Your task to perform on an android device: Clear the shopping cart on newegg.com. Image 0: 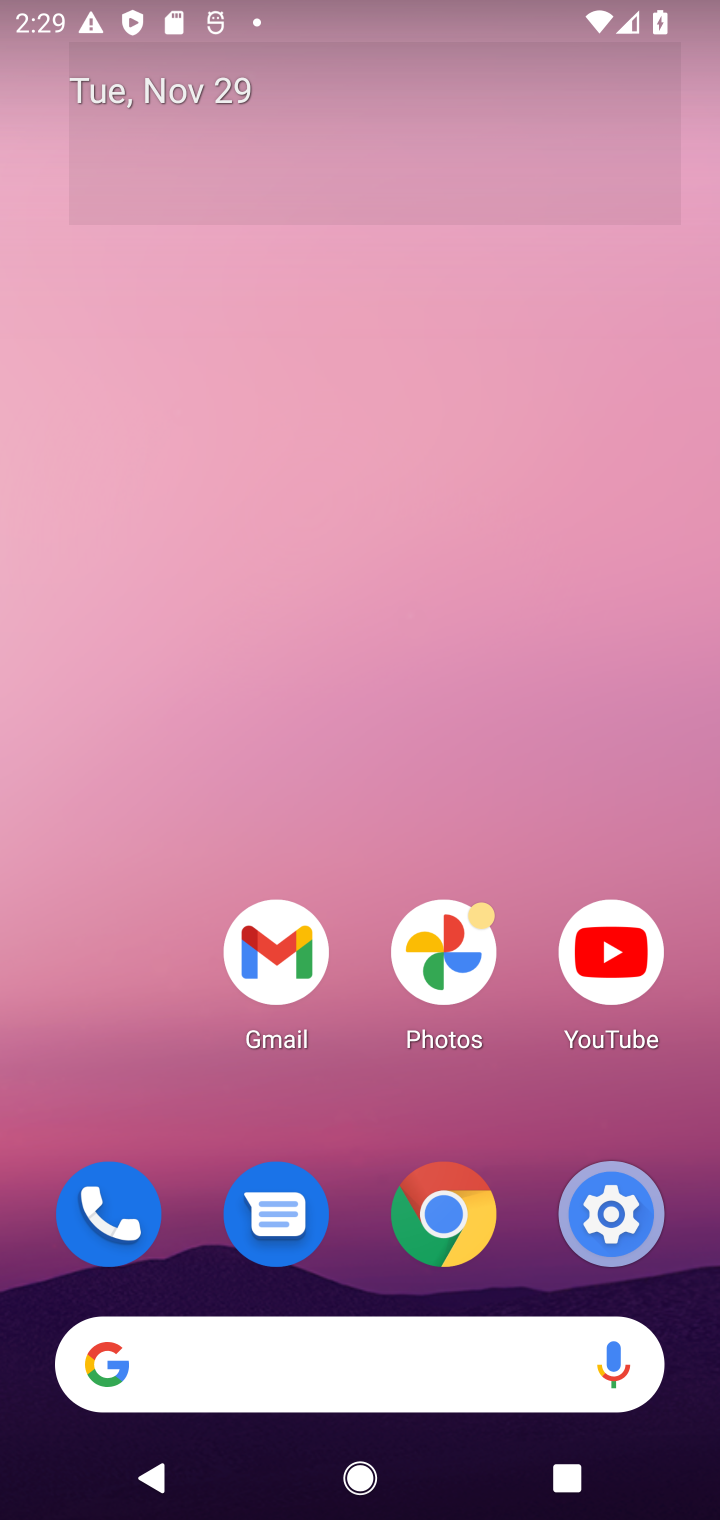
Step 0: click (357, 1331)
Your task to perform on an android device: Clear the shopping cart on newegg.com. Image 1: 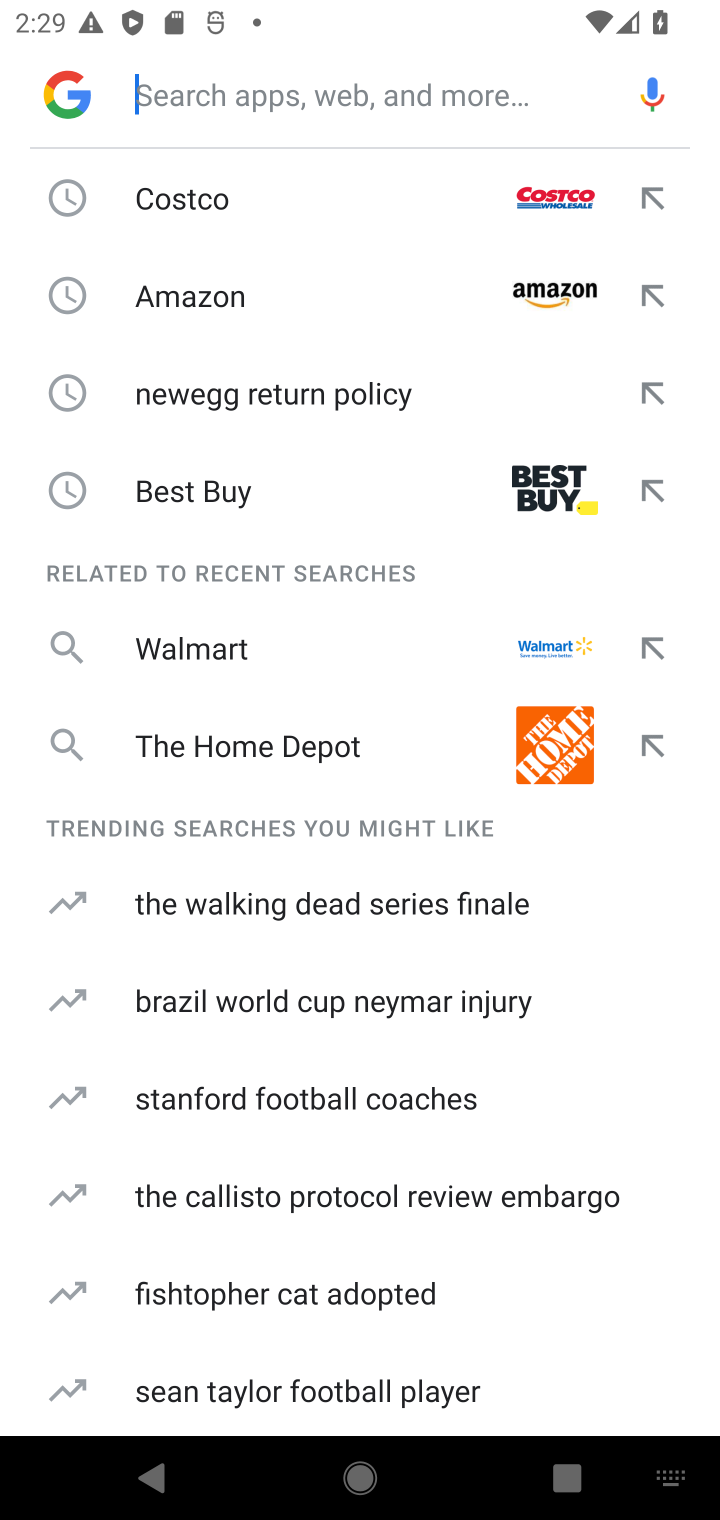
Step 1: click (206, 389)
Your task to perform on an android device: Clear the shopping cart on newegg.com. Image 2: 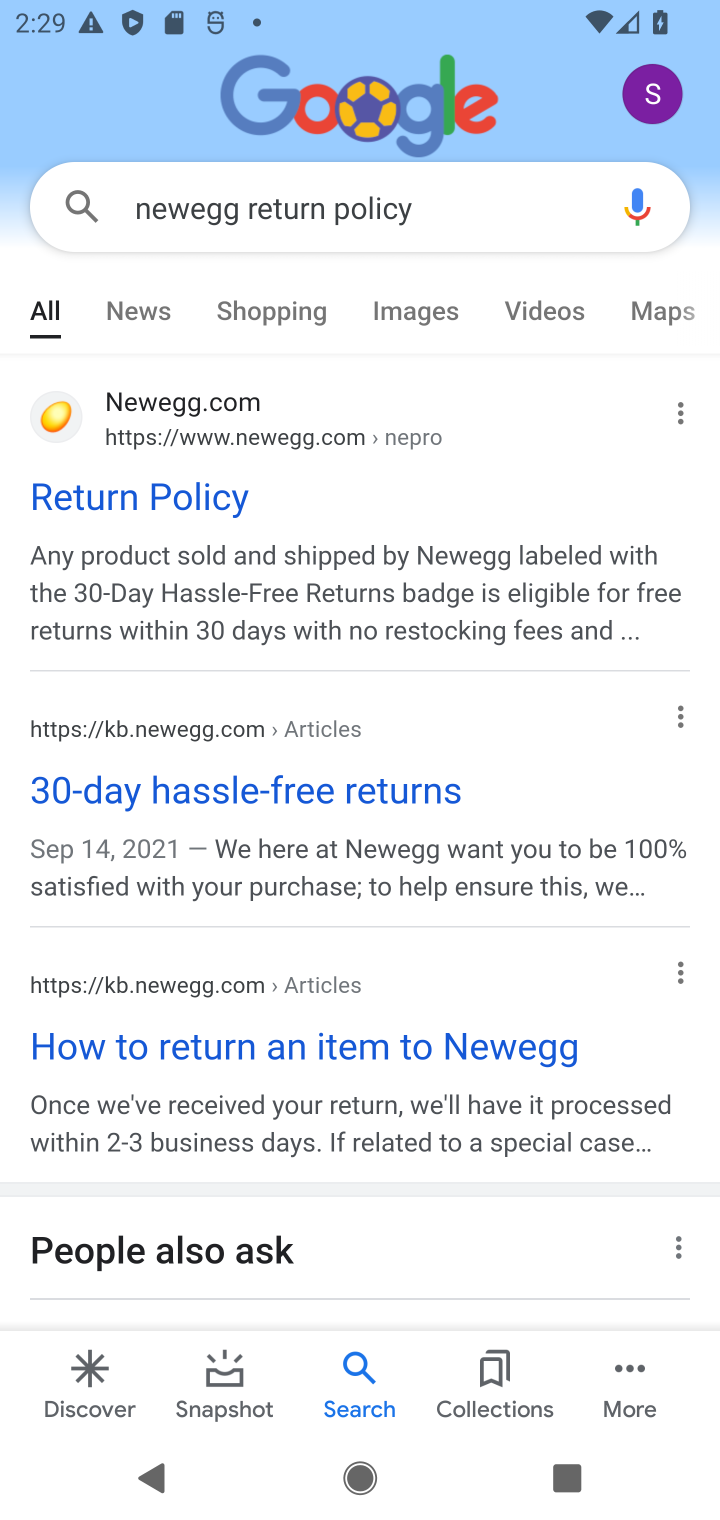
Step 2: click (102, 496)
Your task to perform on an android device: Clear the shopping cart on newegg.com. Image 3: 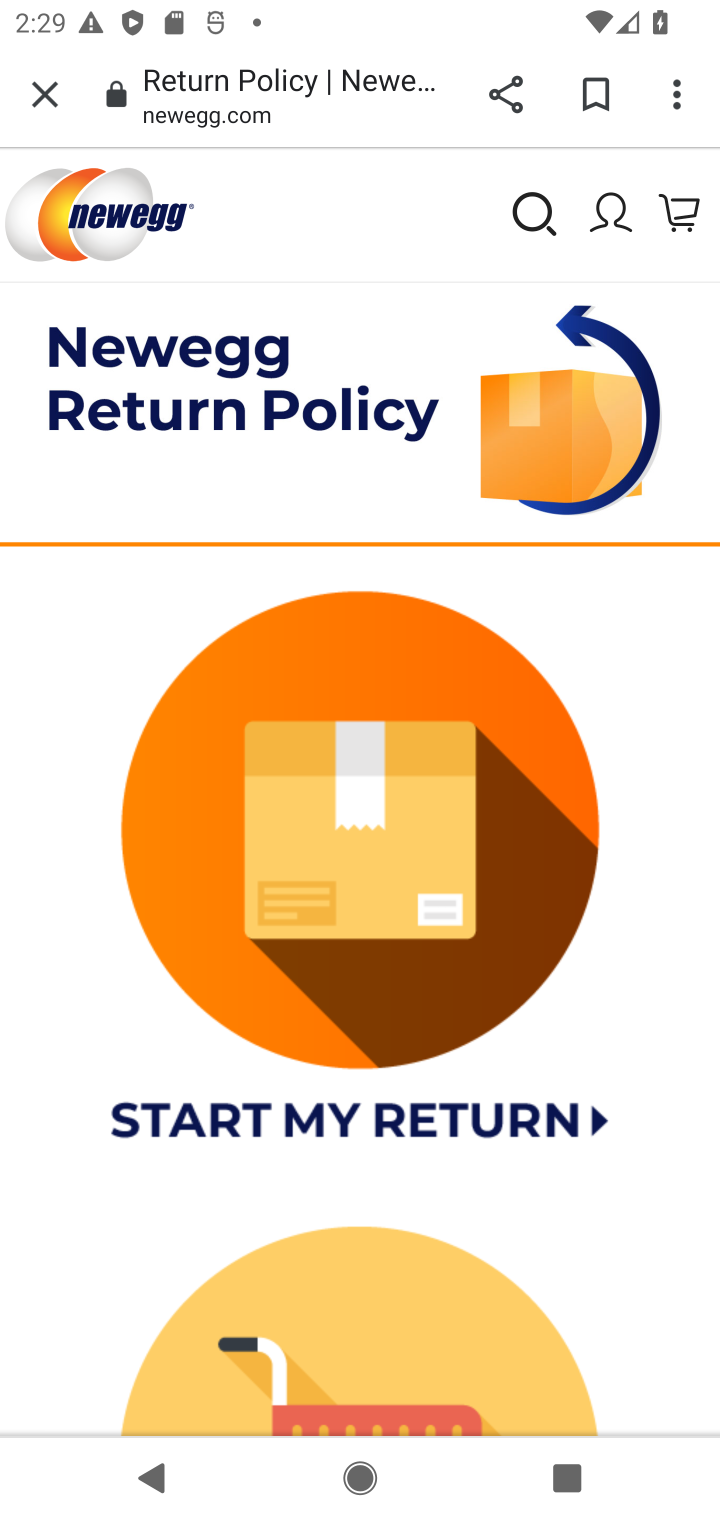
Step 3: task complete